Your task to perform on an android device: Open location settings Image 0: 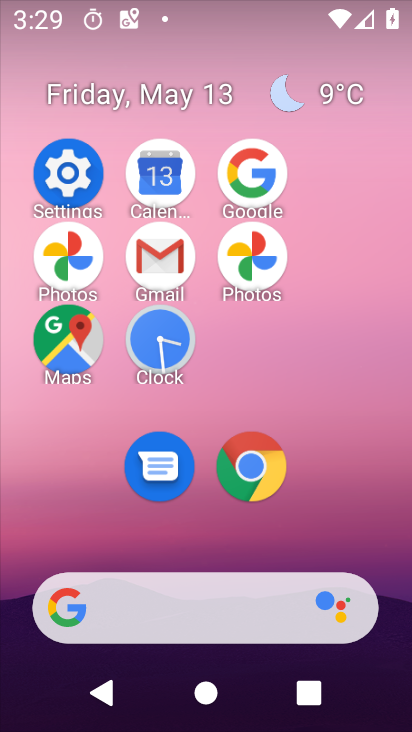
Step 0: click (49, 163)
Your task to perform on an android device: Open location settings Image 1: 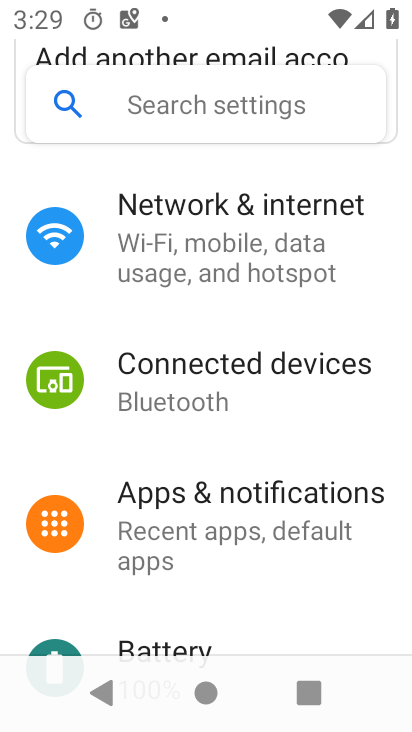
Step 1: drag from (210, 559) to (216, 156)
Your task to perform on an android device: Open location settings Image 2: 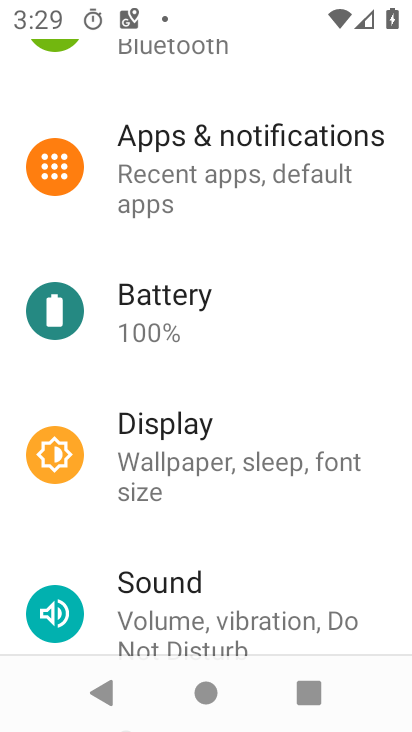
Step 2: drag from (263, 527) to (281, 201)
Your task to perform on an android device: Open location settings Image 3: 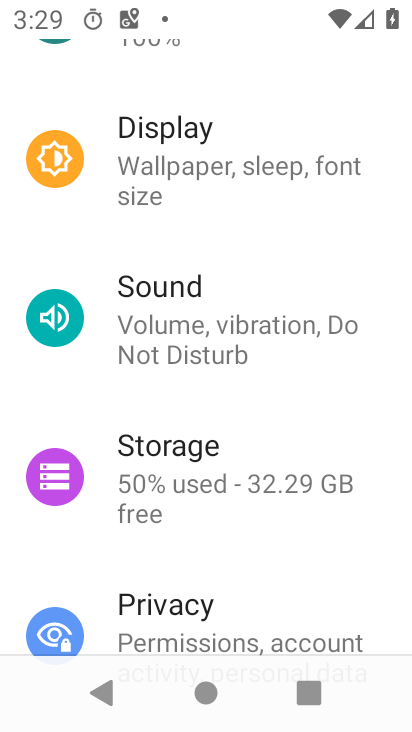
Step 3: drag from (292, 547) to (312, 94)
Your task to perform on an android device: Open location settings Image 4: 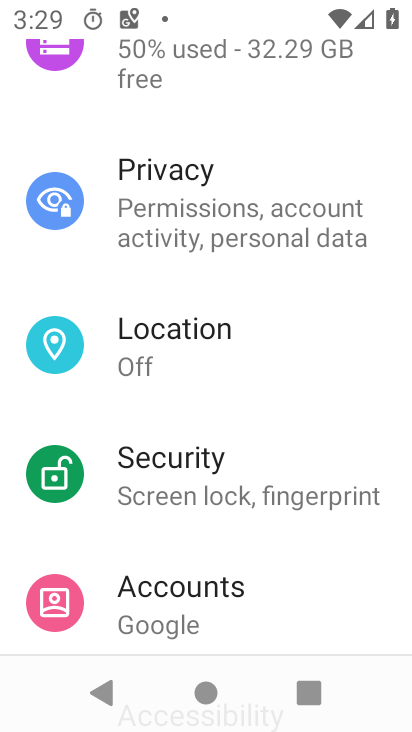
Step 4: click (223, 329)
Your task to perform on an android device: Open location settings Image 5: 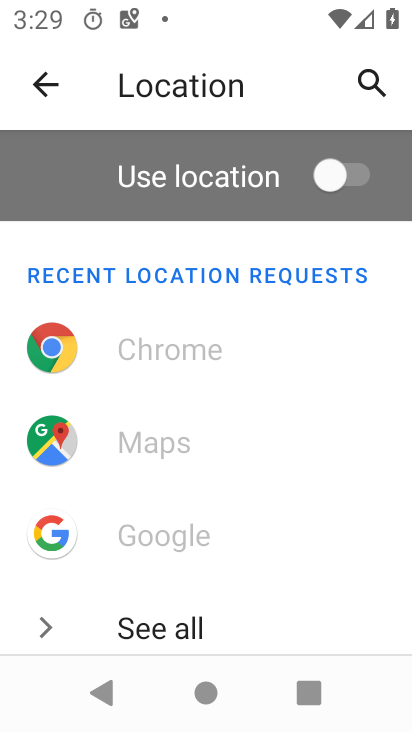
Step 5: task complete